Your task to perform on an android device: turn off priority inbox in the gmail app Image 0: 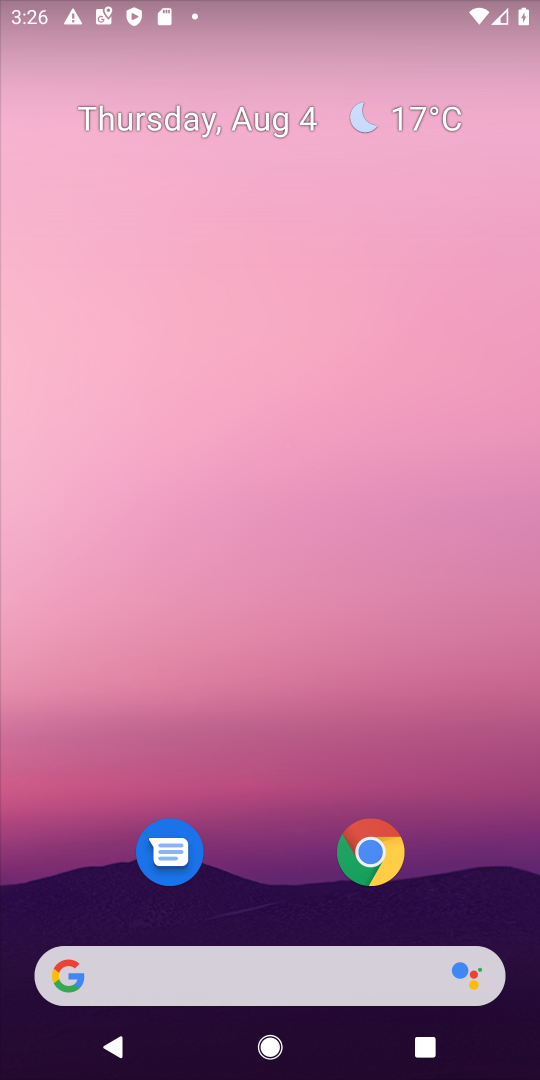
Step 0: drag from (319, 597) to (429, 0)
Your task to perform on an android device: turn off priority inbox in the gmail app Image 1: 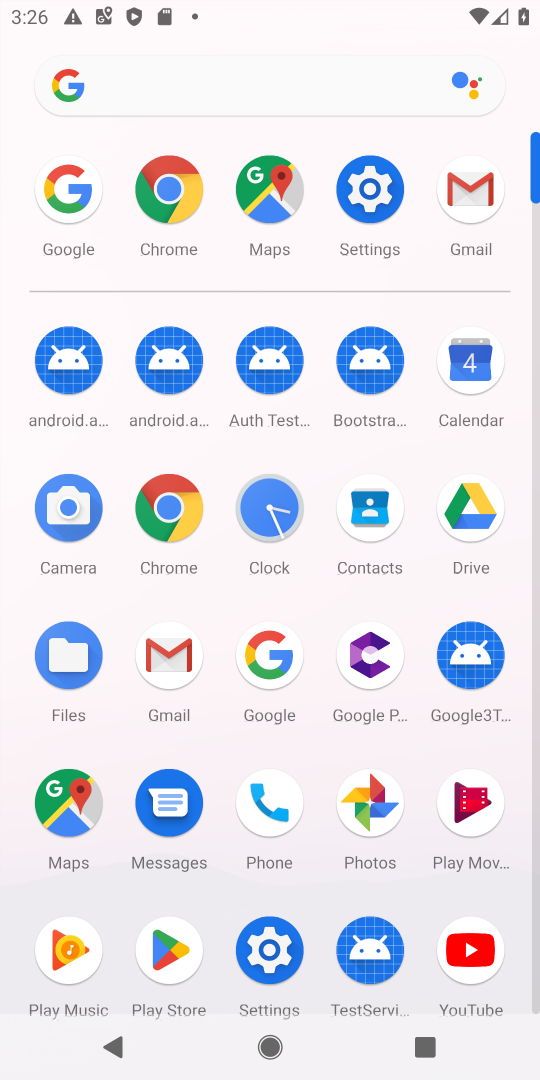
Step 1: click (466, 181)
Your task to perform on an android device: turn off priority inbox in the gmail app Image 2: 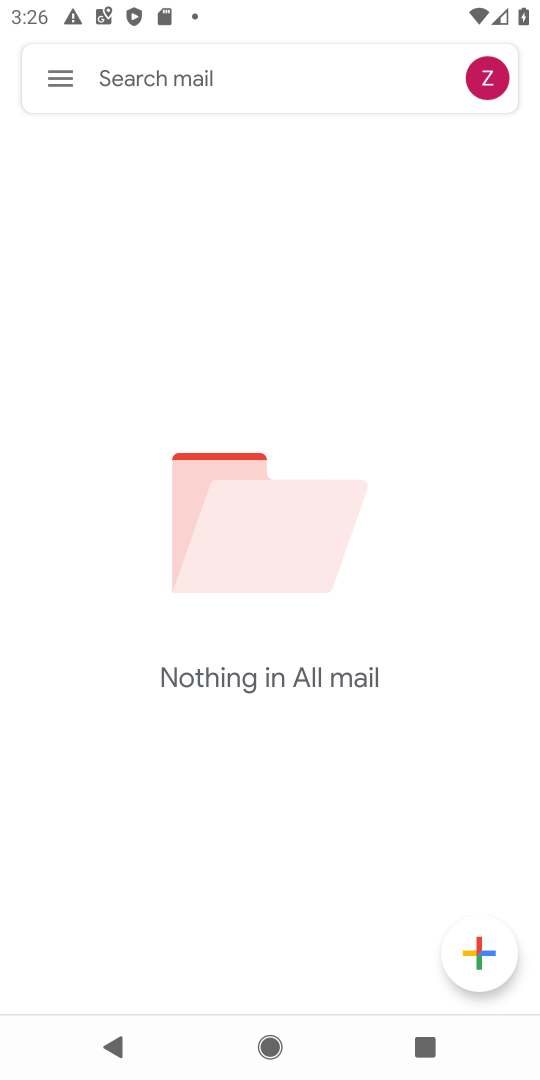
Step 2: click (55, 63)
Your task to perform on an android device: turn off priority inbox in the gmail app Image 3: 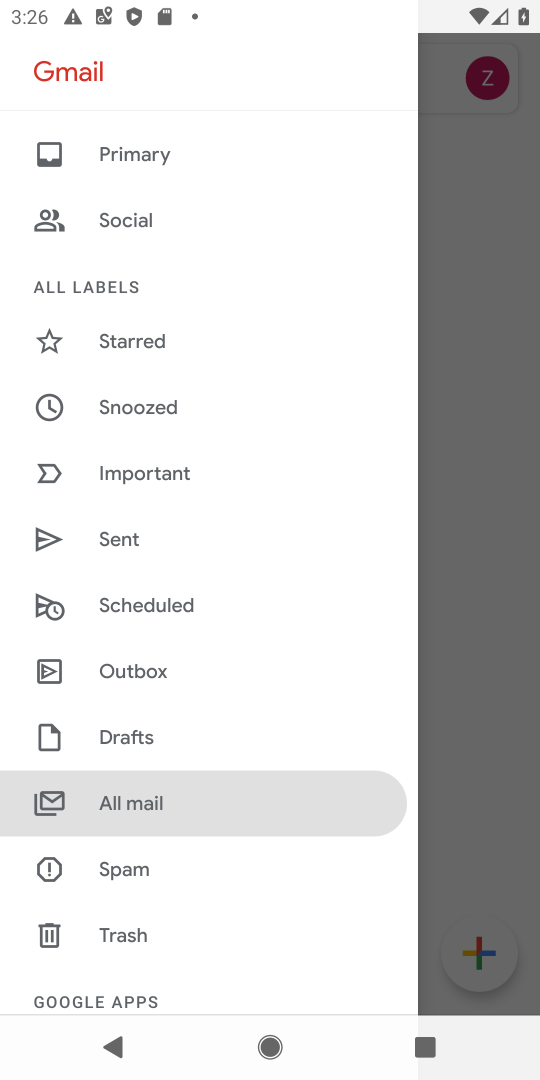
Step 3: drag from (182, 900) to (313, 136)
Your task to perform on an android device: turn off priority inbox in the gmail app Image 4: 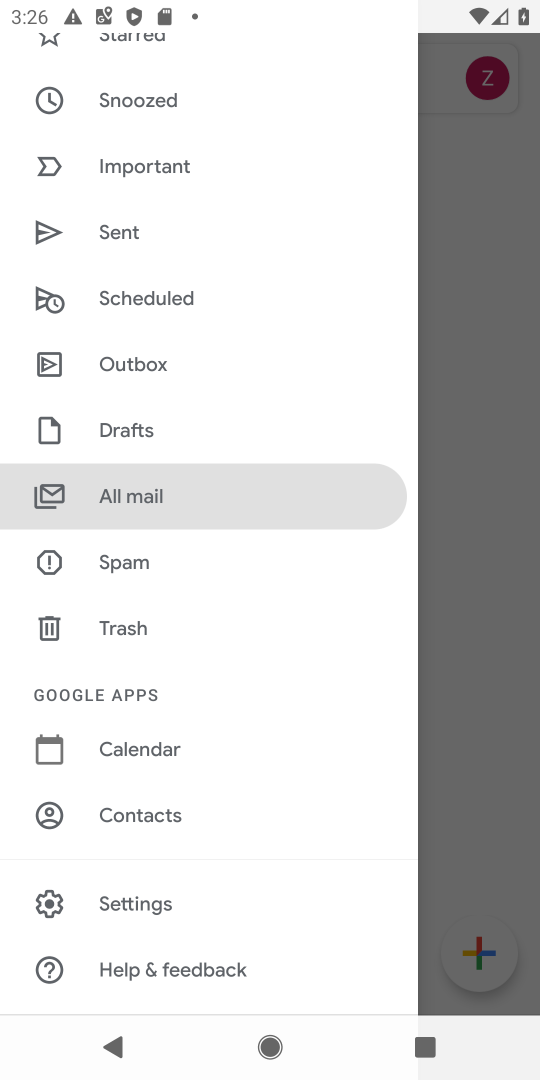
Step 4: click (130, 898)
Your task to perform on an android device: turn off priority inbox in the gmail app Image 5: 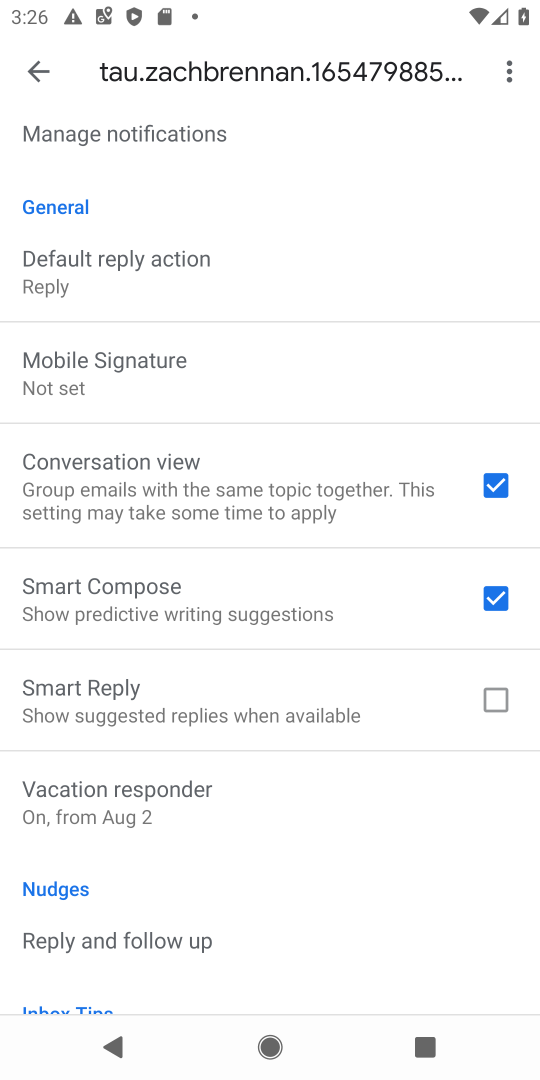
Step 5: drag from (192, 230) to (127, 871)
Your task to perform on an android device: turn off priority inbox in the gmail app Image 6: 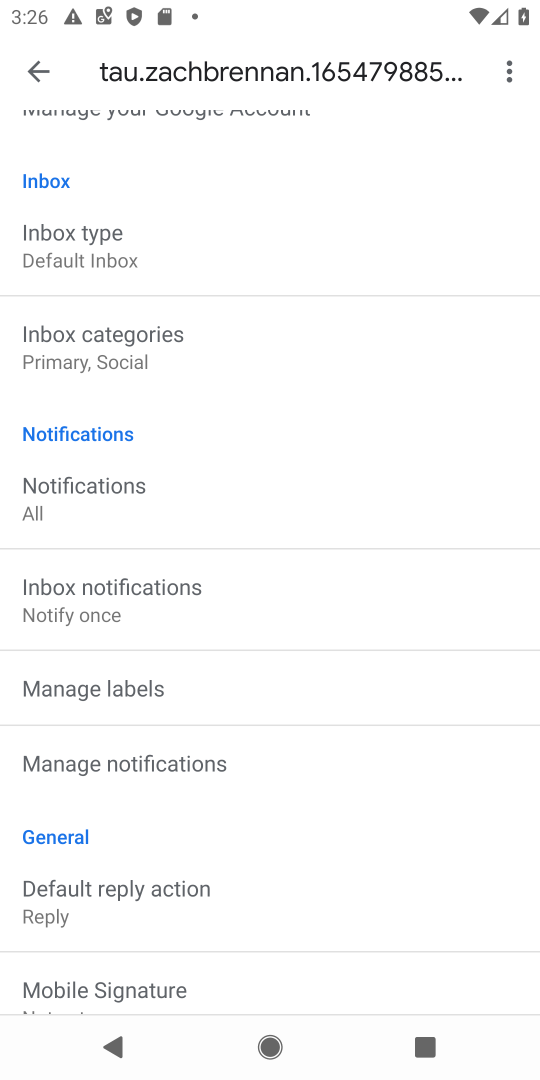
Step 6: click (133, 252)
Your task to perform on an android device: turn off priority inbox in the gmail app Image 7: 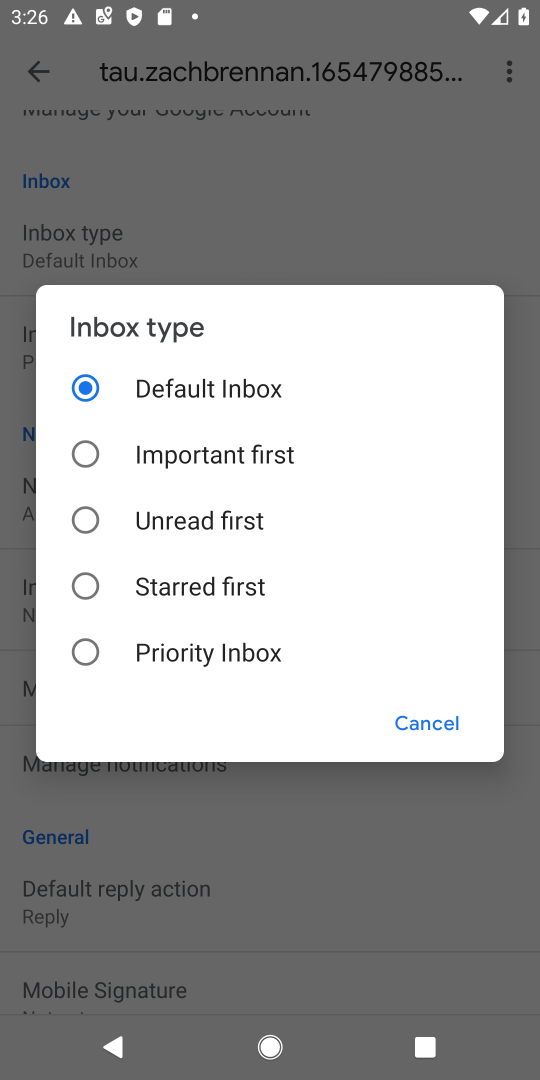
Step 7: task complete